Your task to perform on an android device: add a contact in the contacts app Image 0: 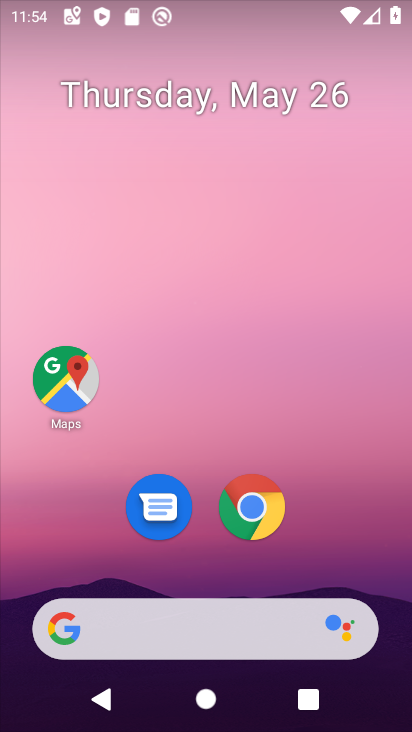
Step 0: drag from (360, 461) to (321, 144)
Your task to perform on an android device: add a contact in the contacts app Image 1: 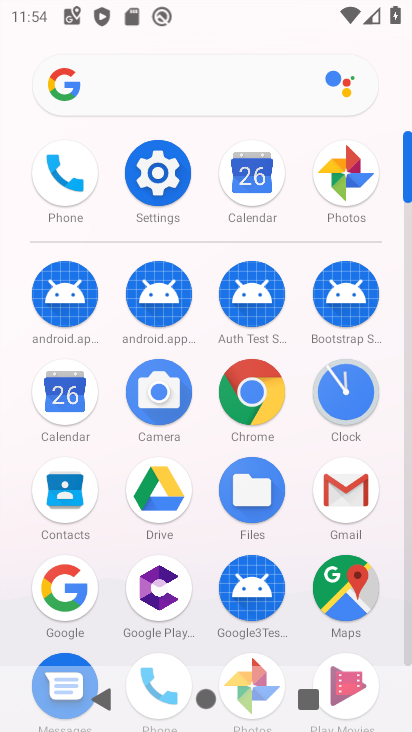
Step 1: click (61, 502)
Your task to perform on an android device: add a contact in the contacts app Image 2: 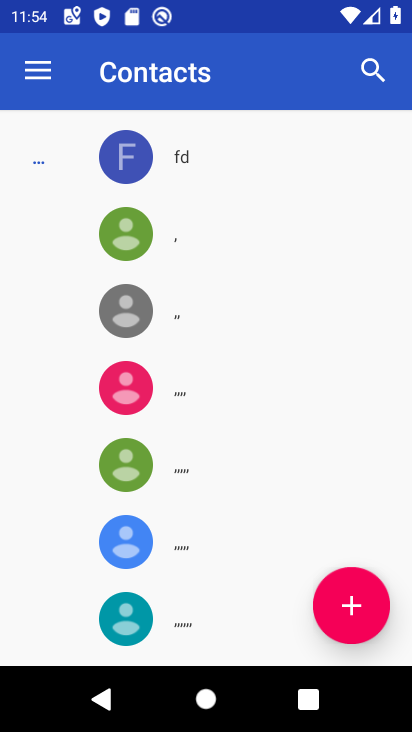
Step 2: click (336, 597)
Your task to perform on an android device: add a contact in the contacts app Image 3: 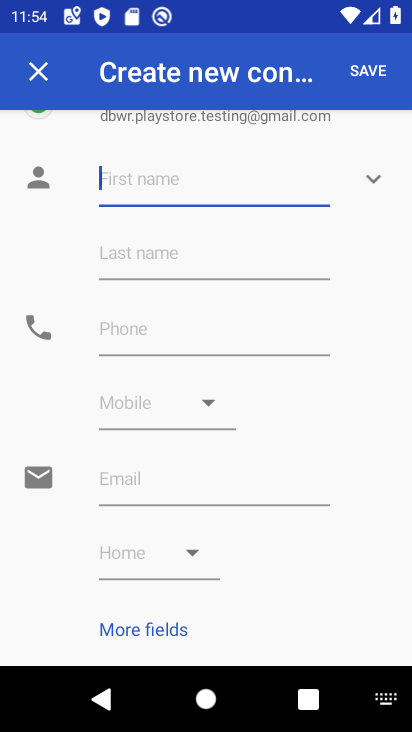
Step 3: type "beti"
Your task to perform on an android device: add a contact in the contacts app Image 4: 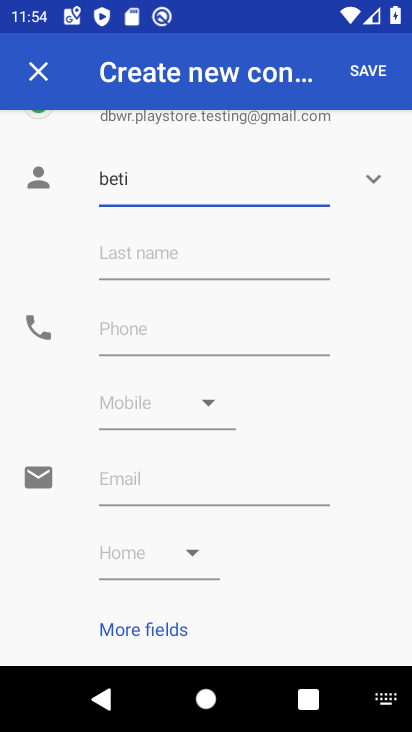
Step 4: click (362, 63)
Your task to perform on an android device: add a contact in the contacts app Image 5: 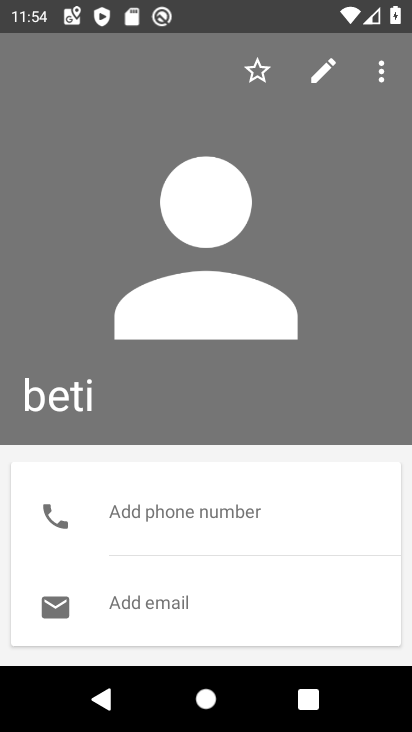
Step 5: task complete